Your task to perform on an android device: Search for vegetarian restaurants on Maps Image 0: 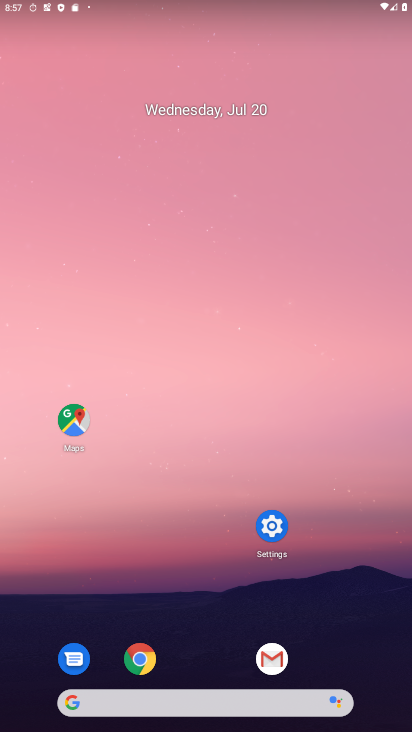
Step 0: click (51, 420)
Your task to perform on an android device: Search for vegetarian restaurants on Maps Image 1: 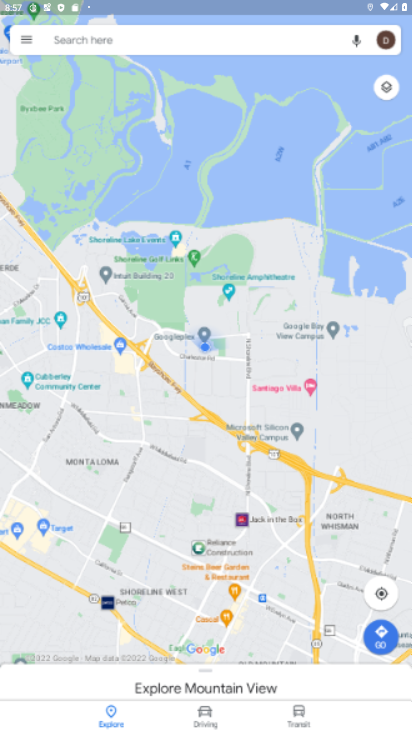
Step 1: click (138, 37)
Your task to perform on an android device: Search for vegetarian restaurants on Maps Image 2: 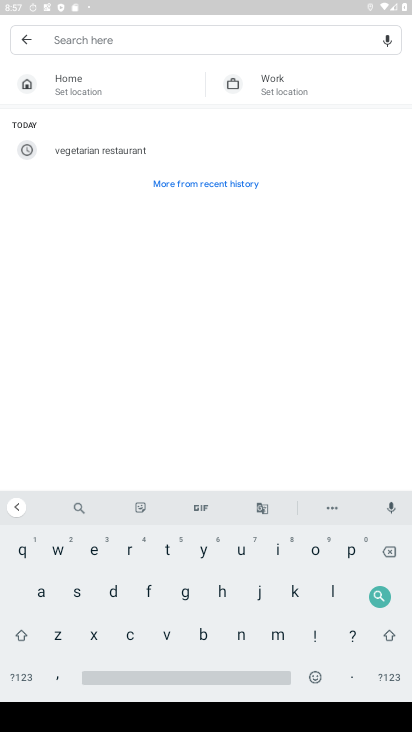
Step 2: click (77, 149)
Your task to perform on an android device: Search for vegetarian restaurants on Maps Image 3: 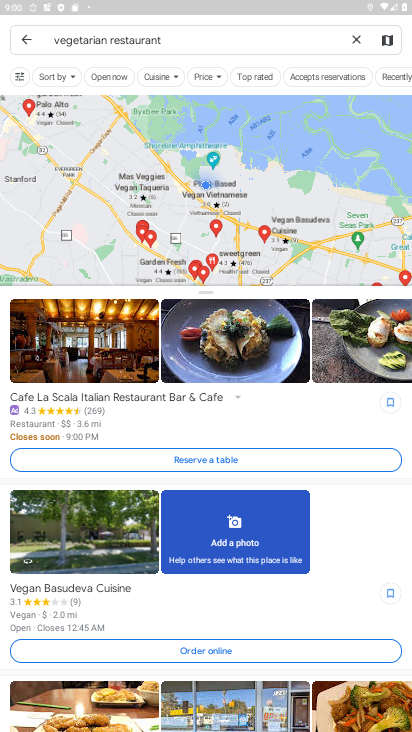
Step 3: task complete